Your task to perform on an android device: turn off location history Image 0: 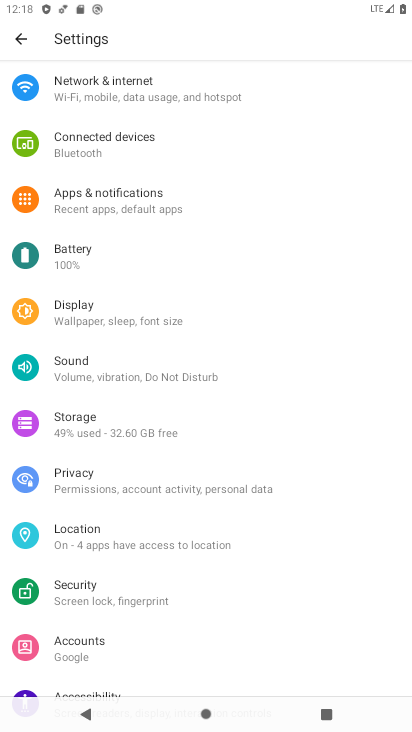
Step 0: click (132, 542)
Your task to perform on an android device: turn off location history Image 1: 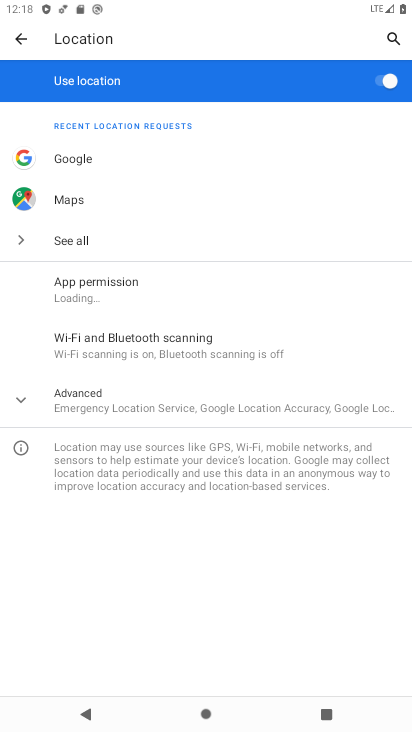
Step 1: click (123, 388)
Your task to perform on an android device: turn off location history Image 2: 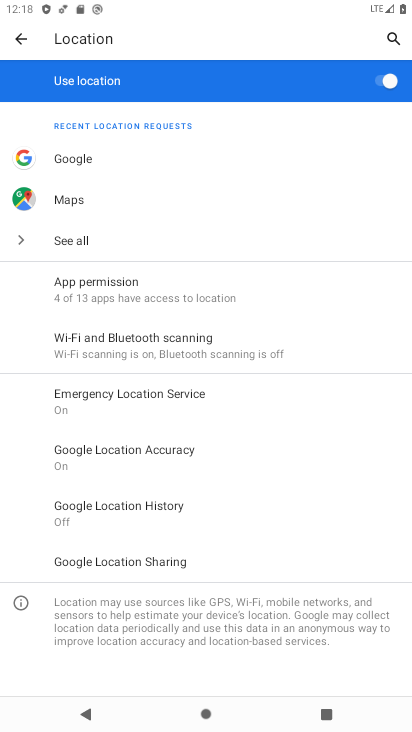
Step 2: click (145, 517)
Your task to perform on an android device: turn off location history Image 3: 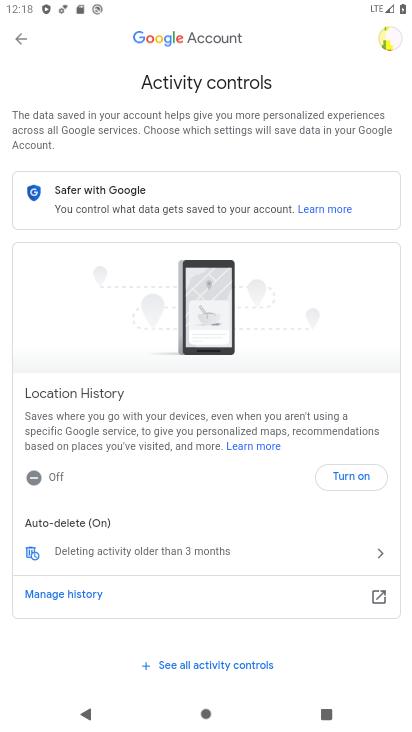
Step 3: task complete